Your task to perform on an android device: choose inbox layout in the gmail app Image 0: 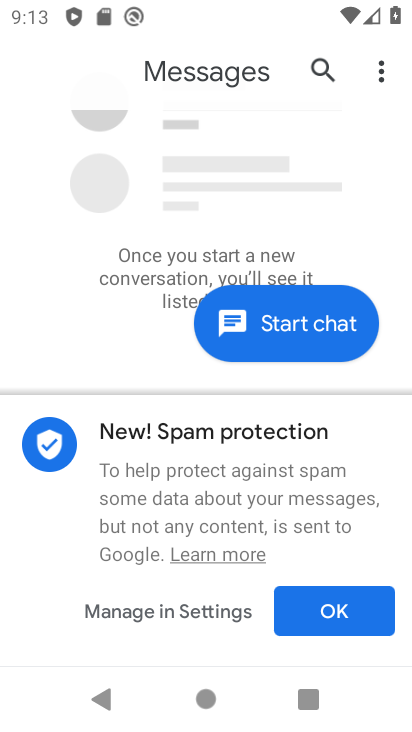
Step 0: press back button
Your task to perform on an android device: choose inbox layout in the gmail app Image 1: 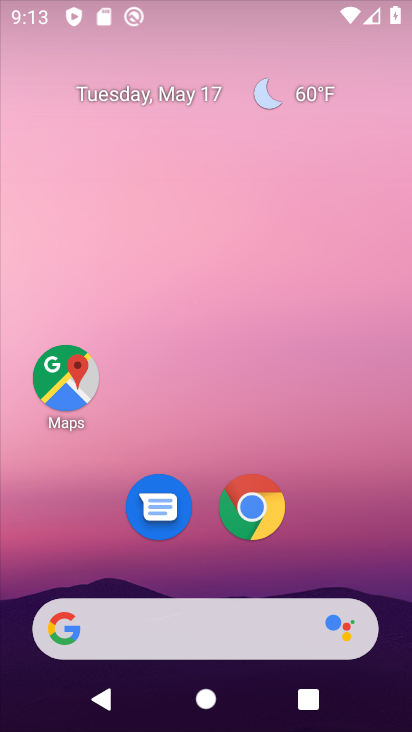
Step 1: drag from (325, 652) to (185, 108)
Your task to perform on an android device: choose inbox layout in the gmail app Image 2: 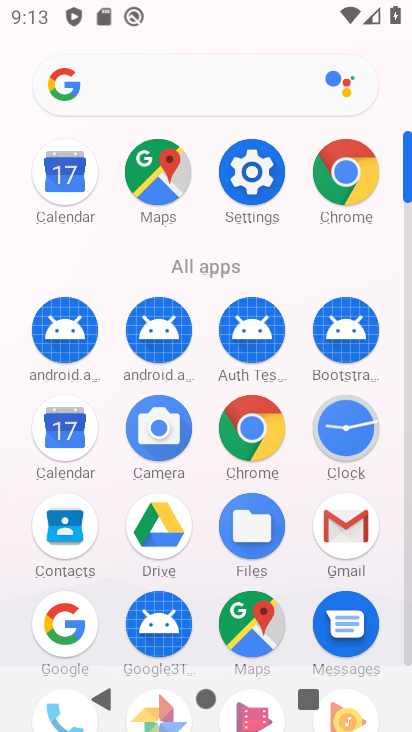
Step 2: click (341, 526)
Your task to perform on an android device: choose inbox layout in the gmail app Image 3: 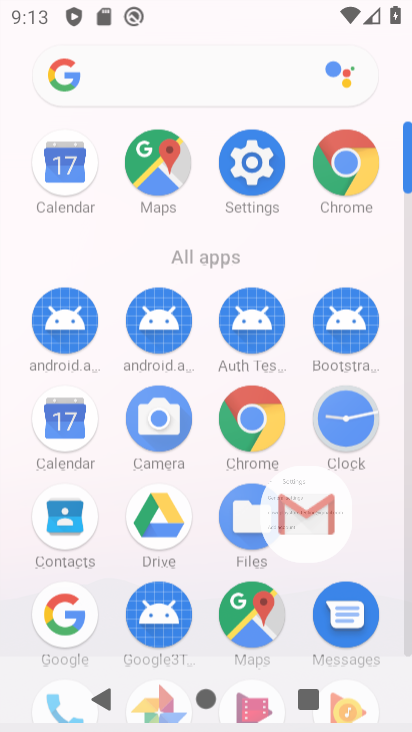
Step 3: click (342, 526)
Your task to perform on an android device: choose inbox layout in the gmail app Image 4: 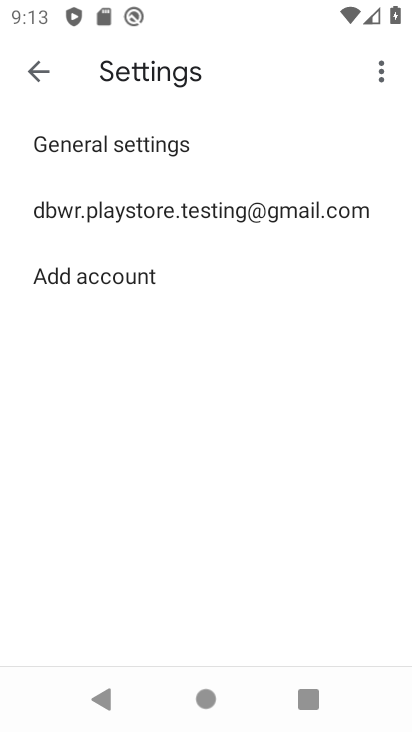
Step 4: click (42, 71)
Your task to perform on an android device: choose inbox layout in the gmail app Image 5: 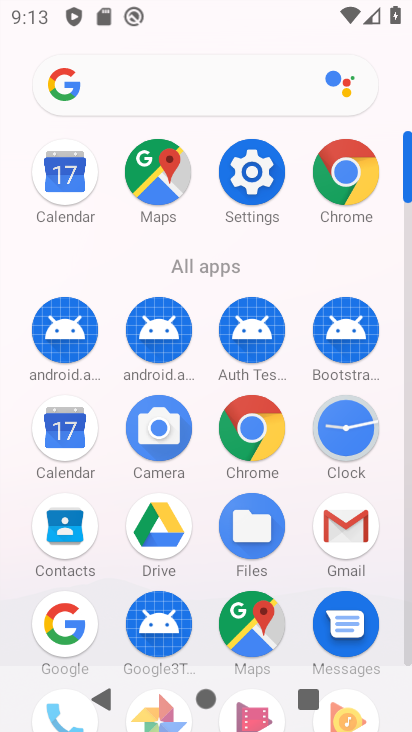
Step 5: click (335, 524)
Your task to perform on an android device: choose inbox layout in the gmail app Image 6: 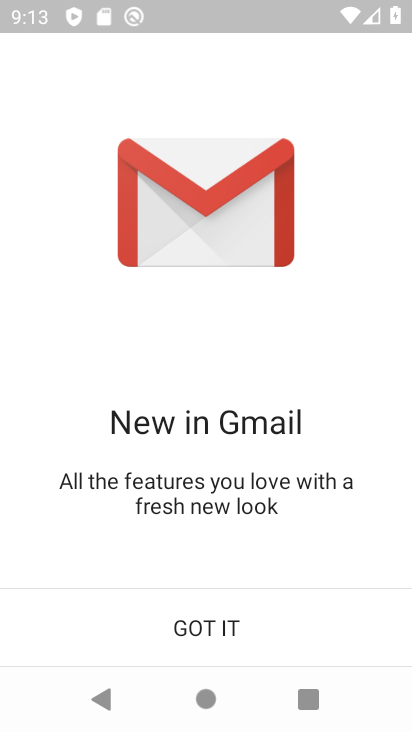
Step 6: click (209, 614)
Your task to perform on an android device: choose inbox layout in the gmail app Image 7: 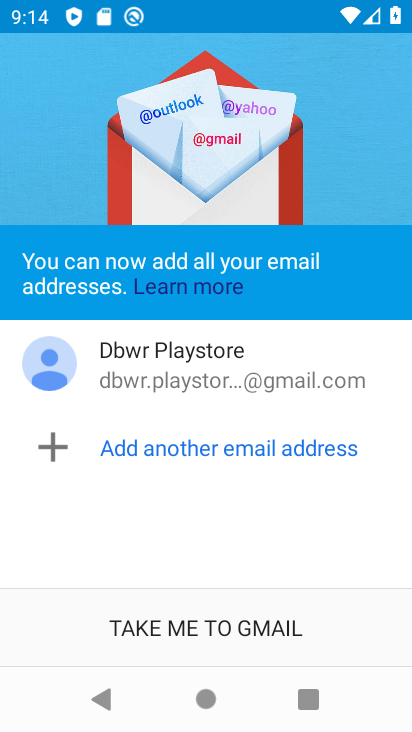
Step 7: click (199, 623)
Your task to perform on an android device: choose inbox layout in the gmail app Image 8: 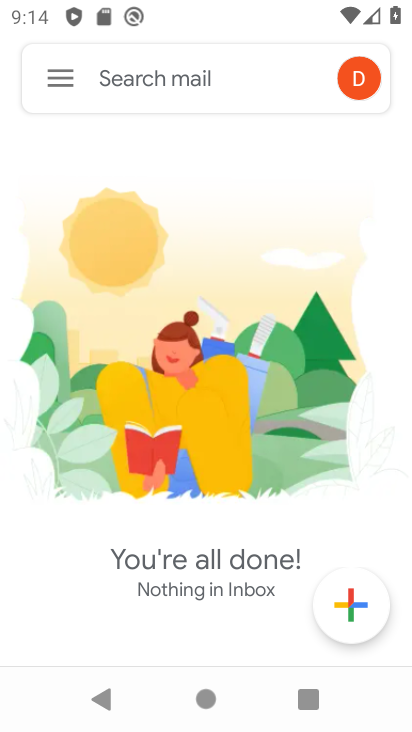
Step 8: click (56, 69)
Your task to perform on an android device: choose inbox layout in the gmail app Image 9: 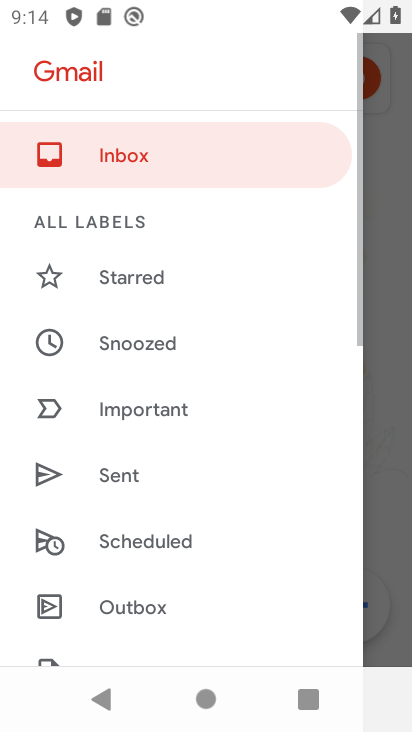
Step 9: drag from (187, 514) to (197, 140)
Your task to perform on an android device: choose inbox layout in the gmail app Image 10: 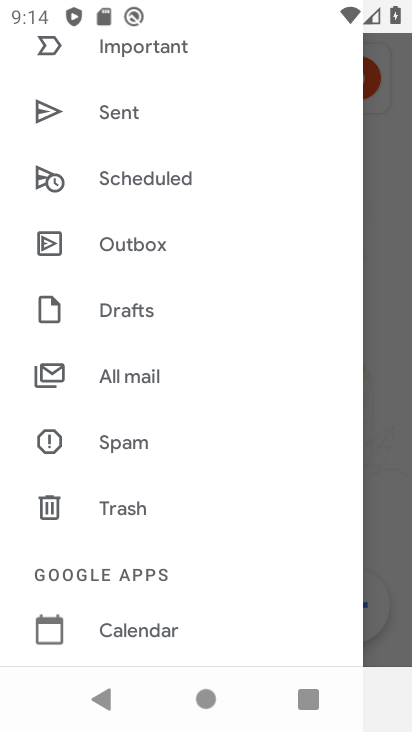
Step 10: click (127, 373)
Your task to perform on an android device: choose inbox layout in the gmail app Image 11: 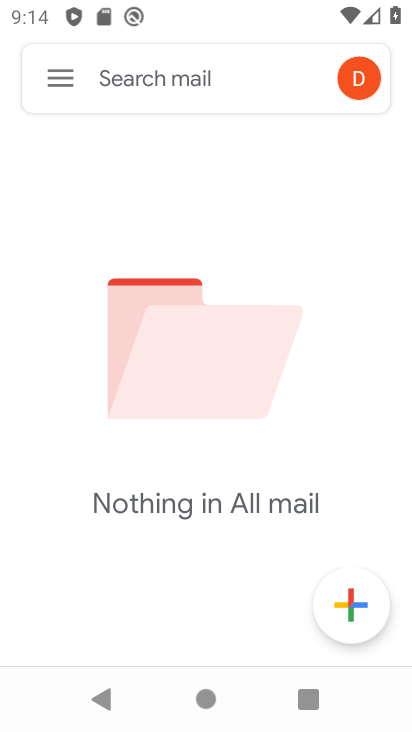
Step 11: task complete